Your task to perform on an android device: turn on data saver in the chrome app Image 0: 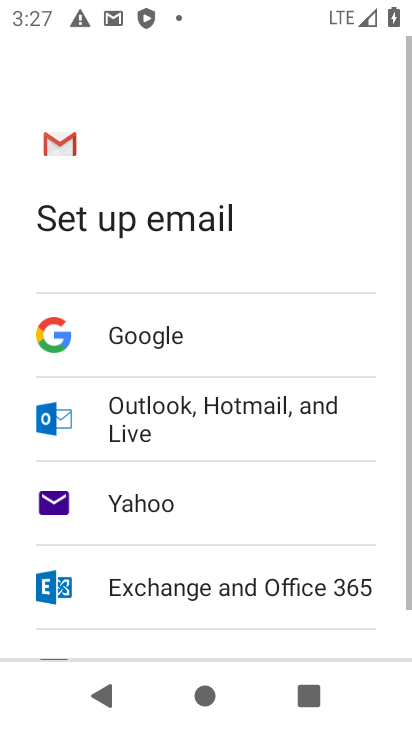
Step 0: press home button
Your task to perform on an android device: turn on data saver in the chrome app Image 1: 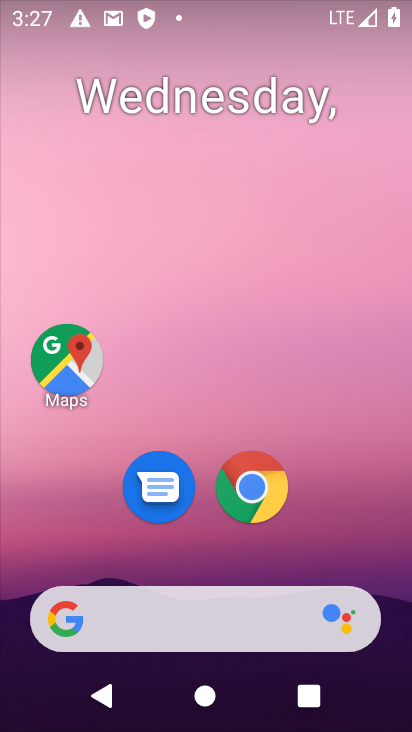
Step 1: drag from (344, 496) to (372, 0)
Your task to perform on an android device: turn on data saver in the chrome app Image 2: 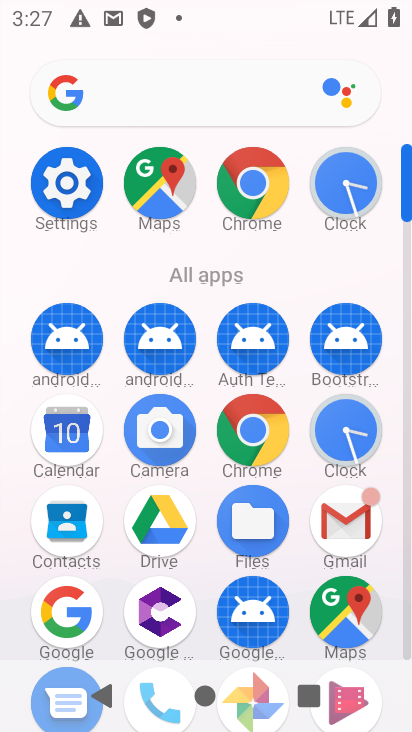
Step 2: click (256, 428)
Your task to perform on an android device: turn on data saver in the chrome app Image 3: 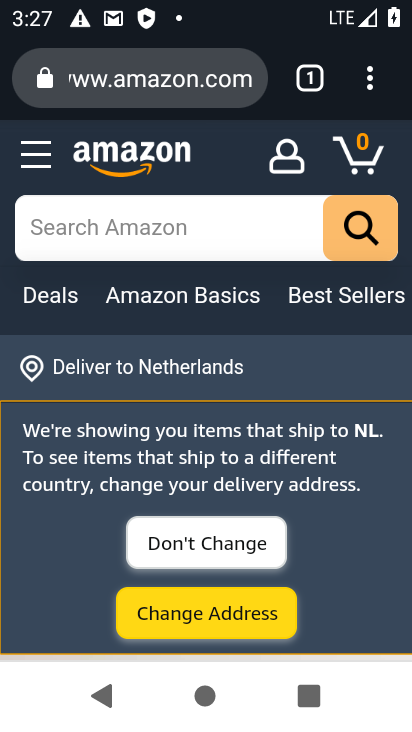
Step 3: drag from (373, 75) to (194, 557)
Your task to perform on an android device: turn on data saver in the chrome app Image 4: 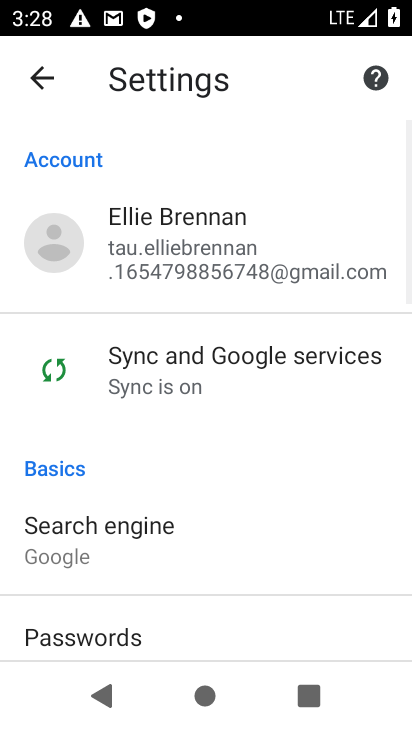
Step 4: drag from (215, 613) to (342, 71)
Your task to perform on an android device: turn on data saver in the chrome app Image 5: 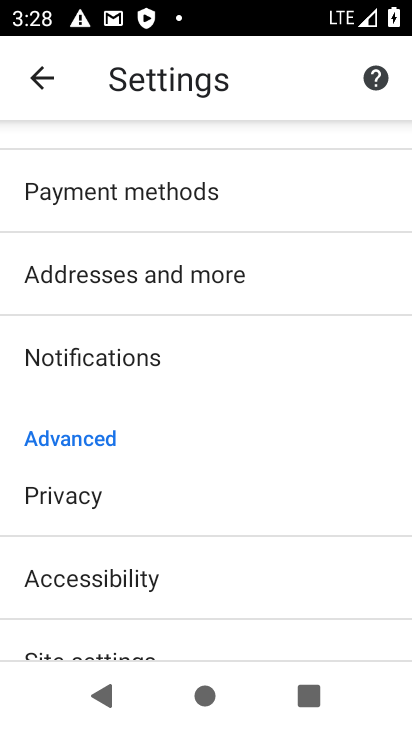
Step 5: drag from (211, 450) to (358, 132)
Your task to perform on an android device: turn on data saver in the chrome app Image 6: 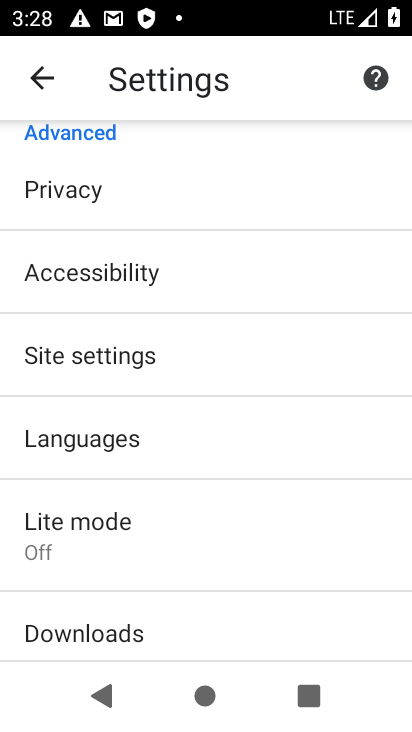
Step 6: click (81, 519)
Your task to perform on an android device: turn on data saver in the chrome app Image 7: 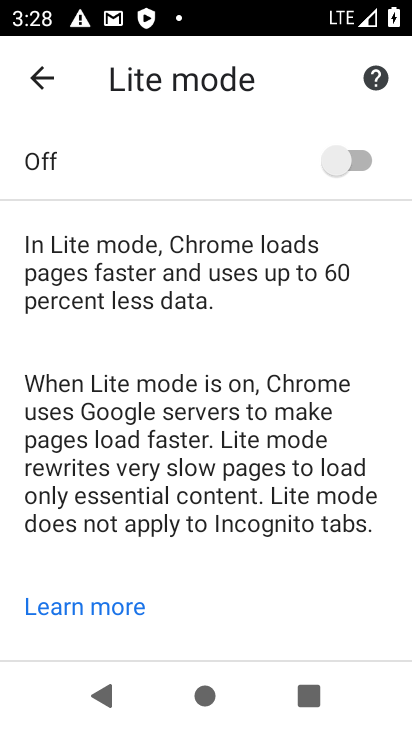
Step 7: click (335, 159)
Your task to perform on an android device: turn on data saver in the chrome app Image 8: 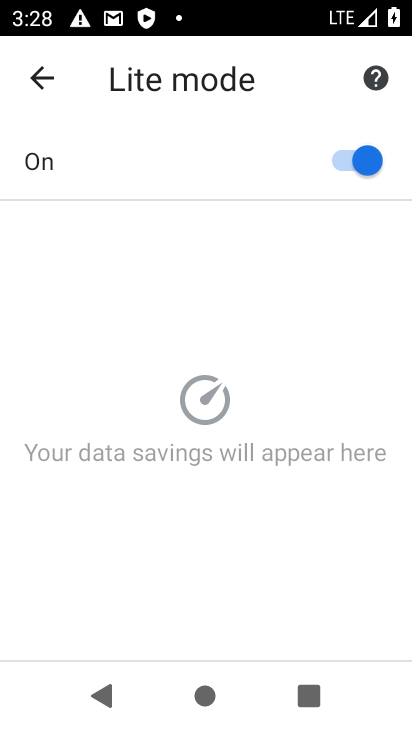
Step 8: task complete